Your task to perform on an android device: open app "Messages" Image 0: 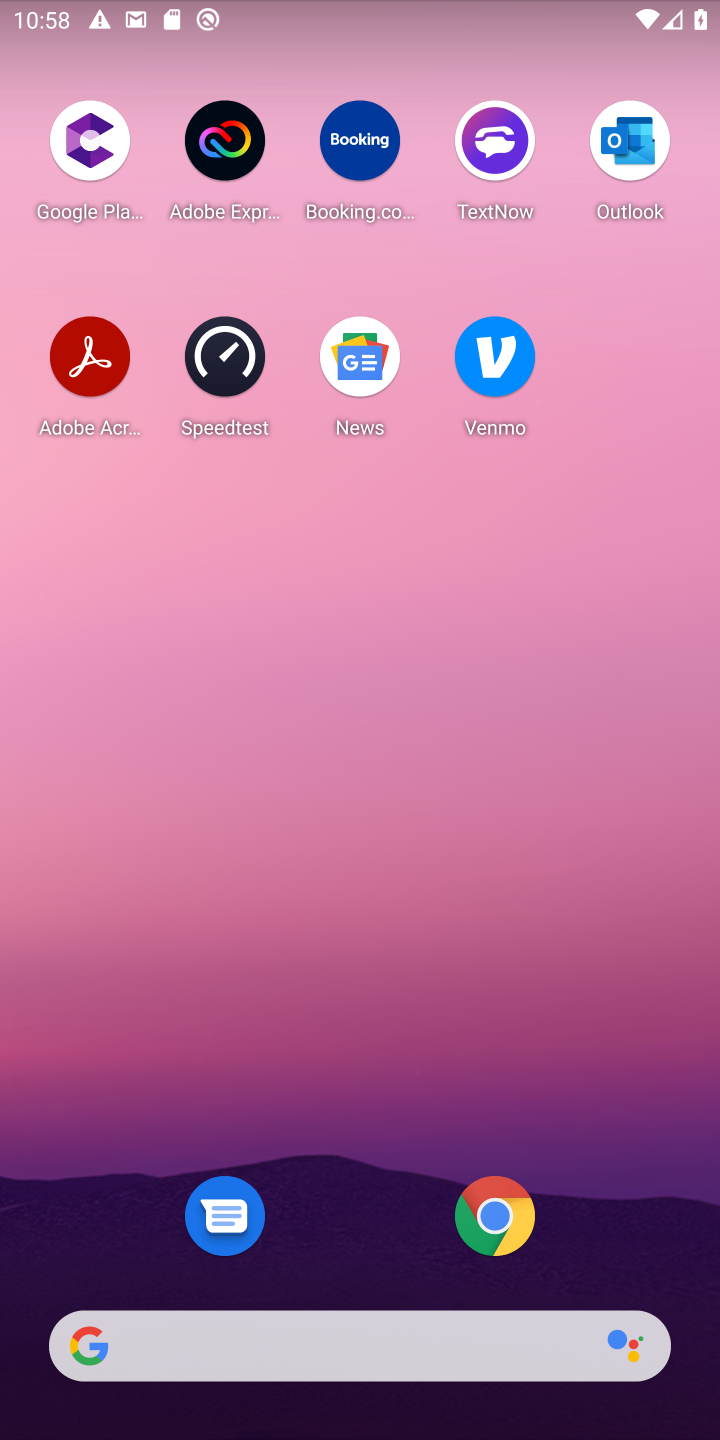
Step 0: drag from (259, 1369) to (492, 323)
Your task to perform on an android device: open app "Messages" Image 1: 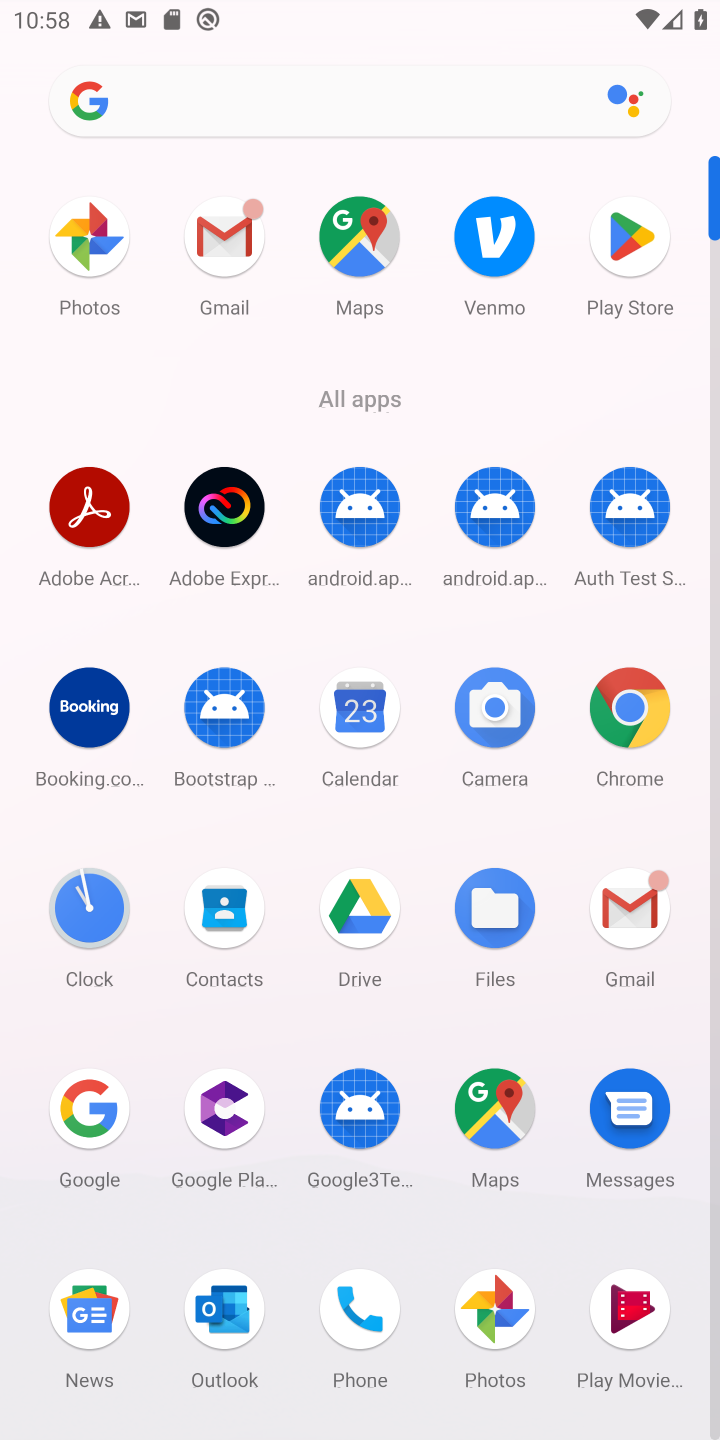
Step 1: click (627, 247)
Your task to perform on an android device: open app "Messages" Image 2: 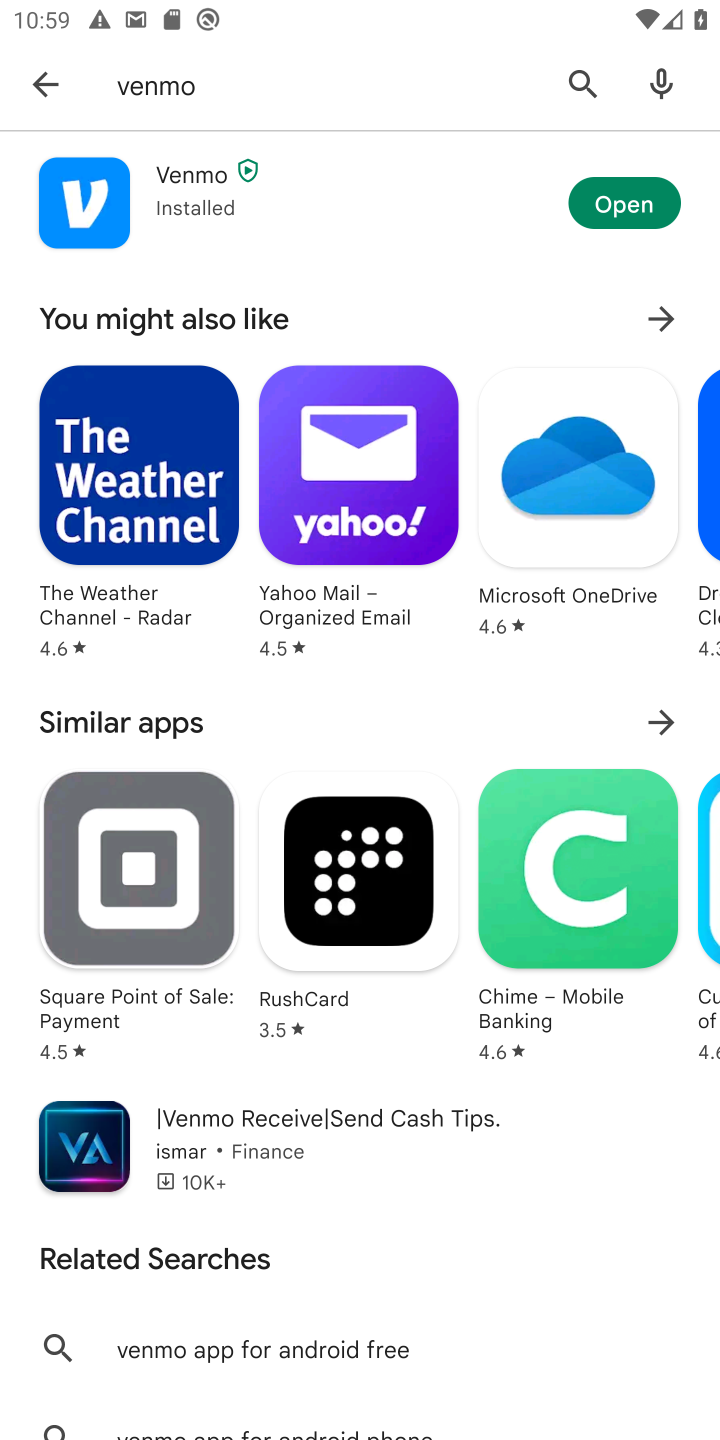
Step 2: press back button
Your task to perform on an android device: open app "Messages" Image 3: 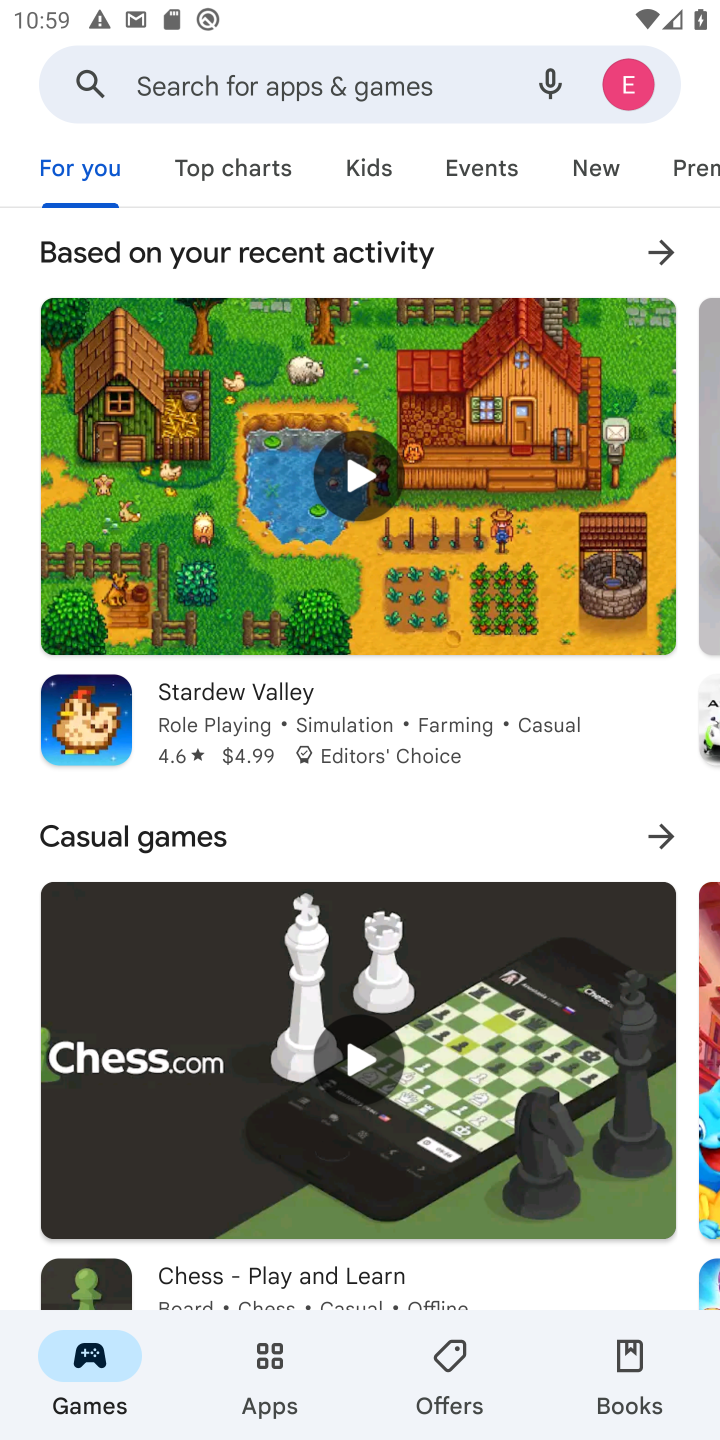
Step 3: click (428, 87)
Your task to perform on an android device: open app "Messages" Image 4: 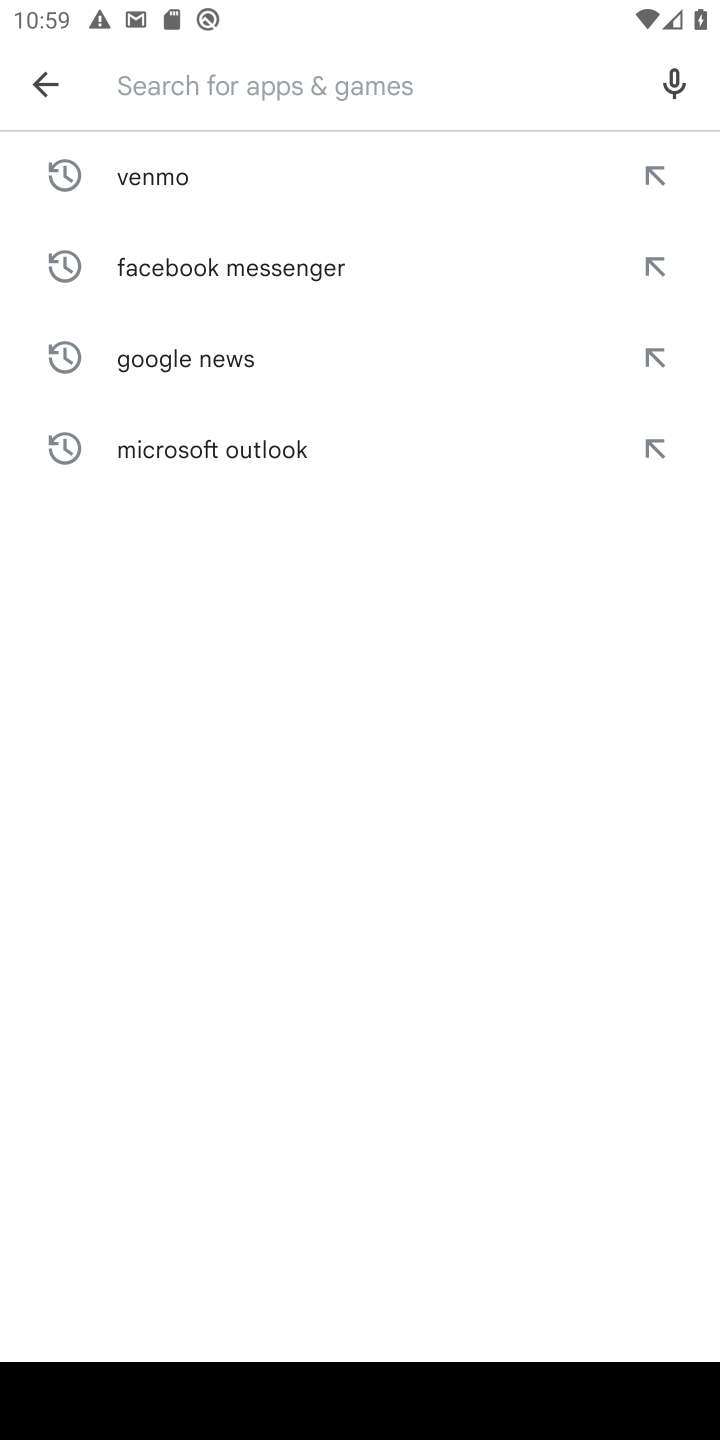
Step 4: type "Messages"
Your task to perform on an android device: open app "Messages" Image 5: 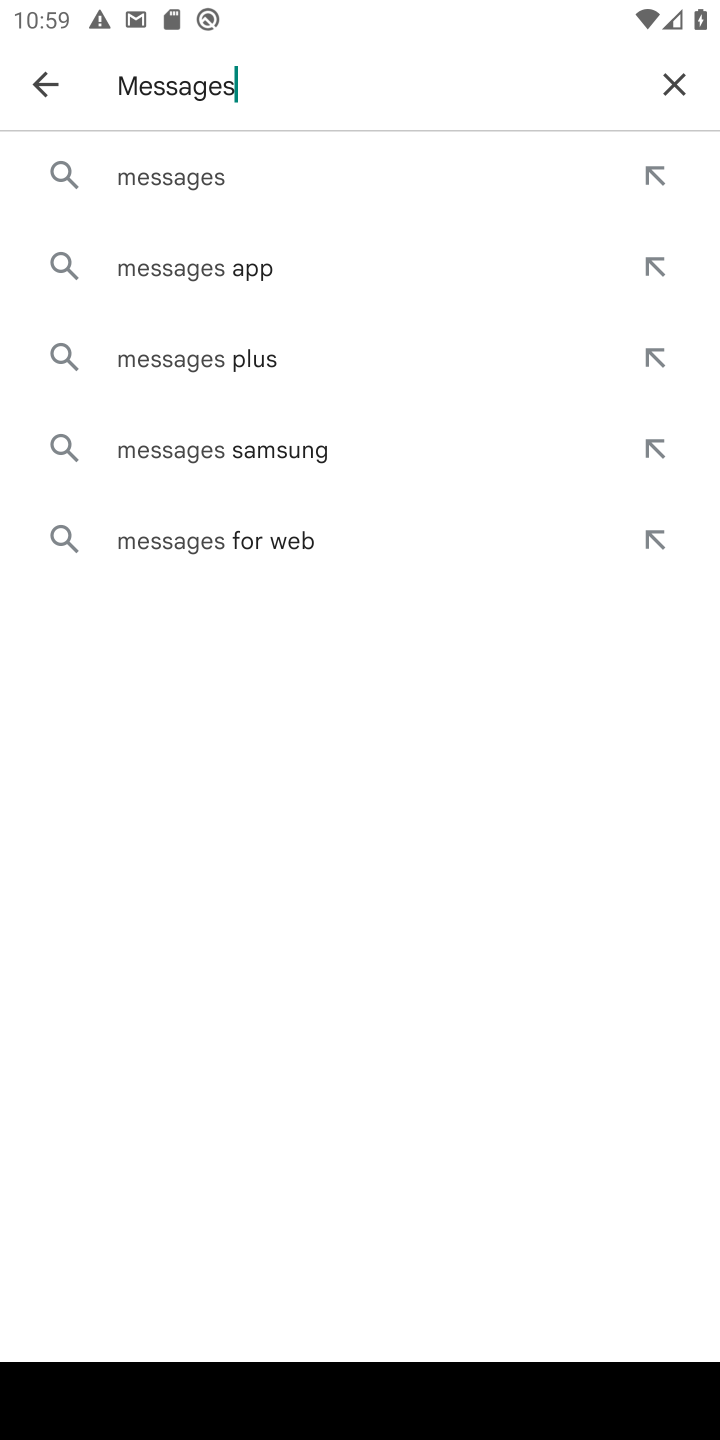
Step 5: click (188, 186)
Your task to perform on an android device: open app "Messages" Image 6: 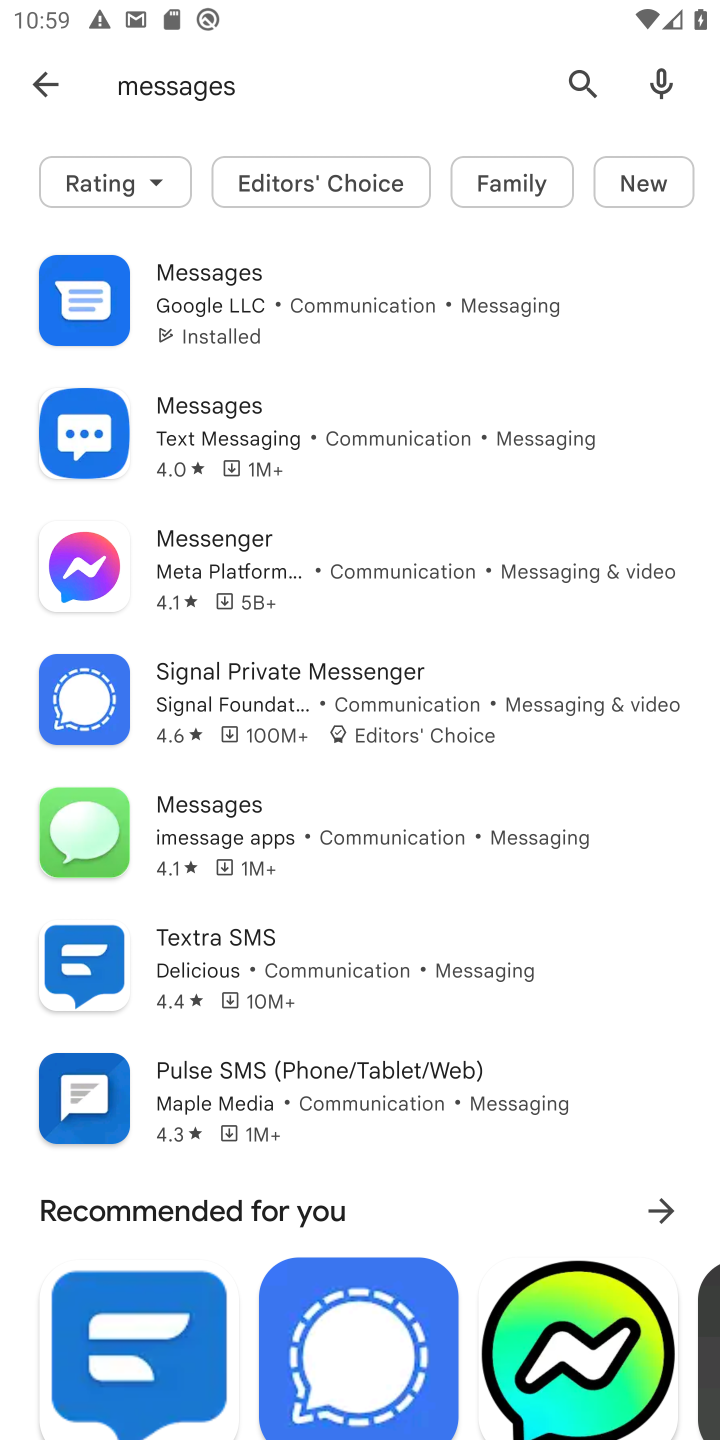
Step 6: click (187, 275)
Your task to perform on an android device: open app "Messages" Image 7: 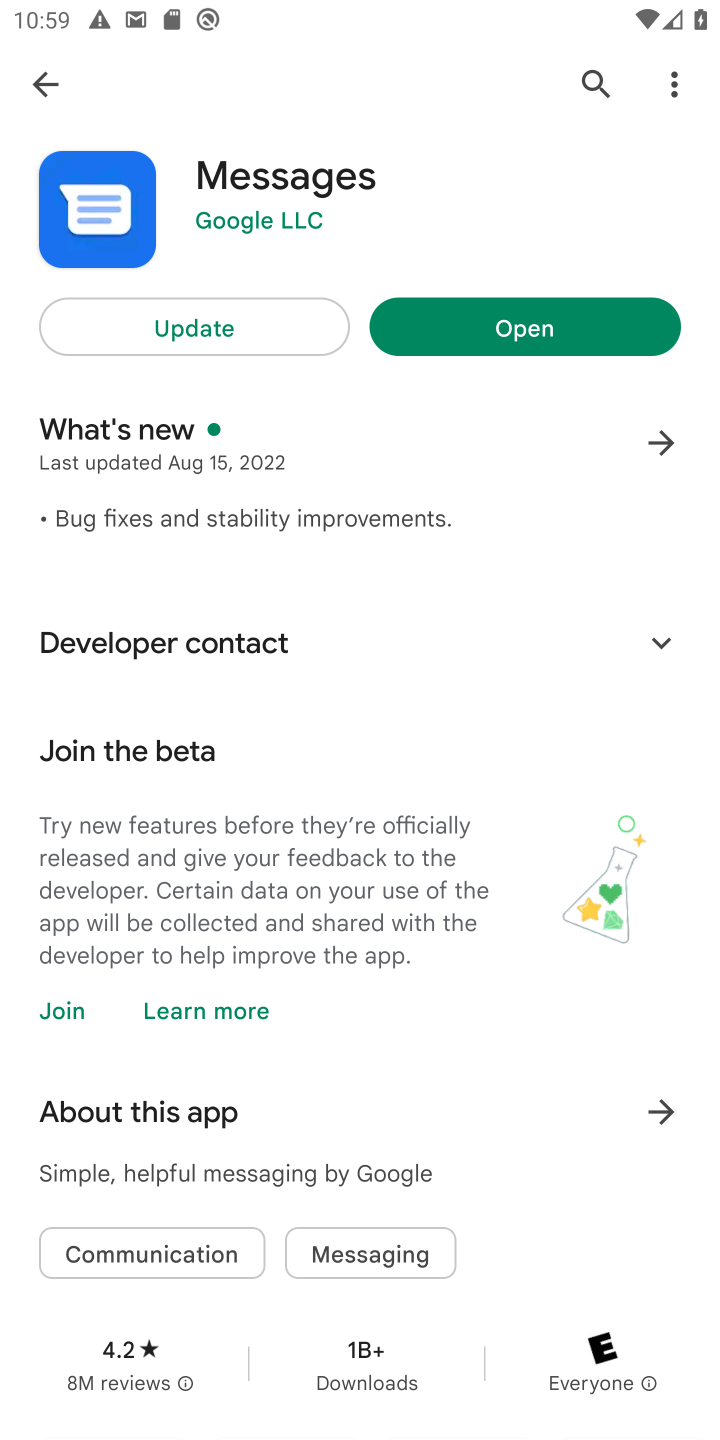
Step 7: click (497, 336)
Your task to perform on an android device: open app "Messages" Image 8: 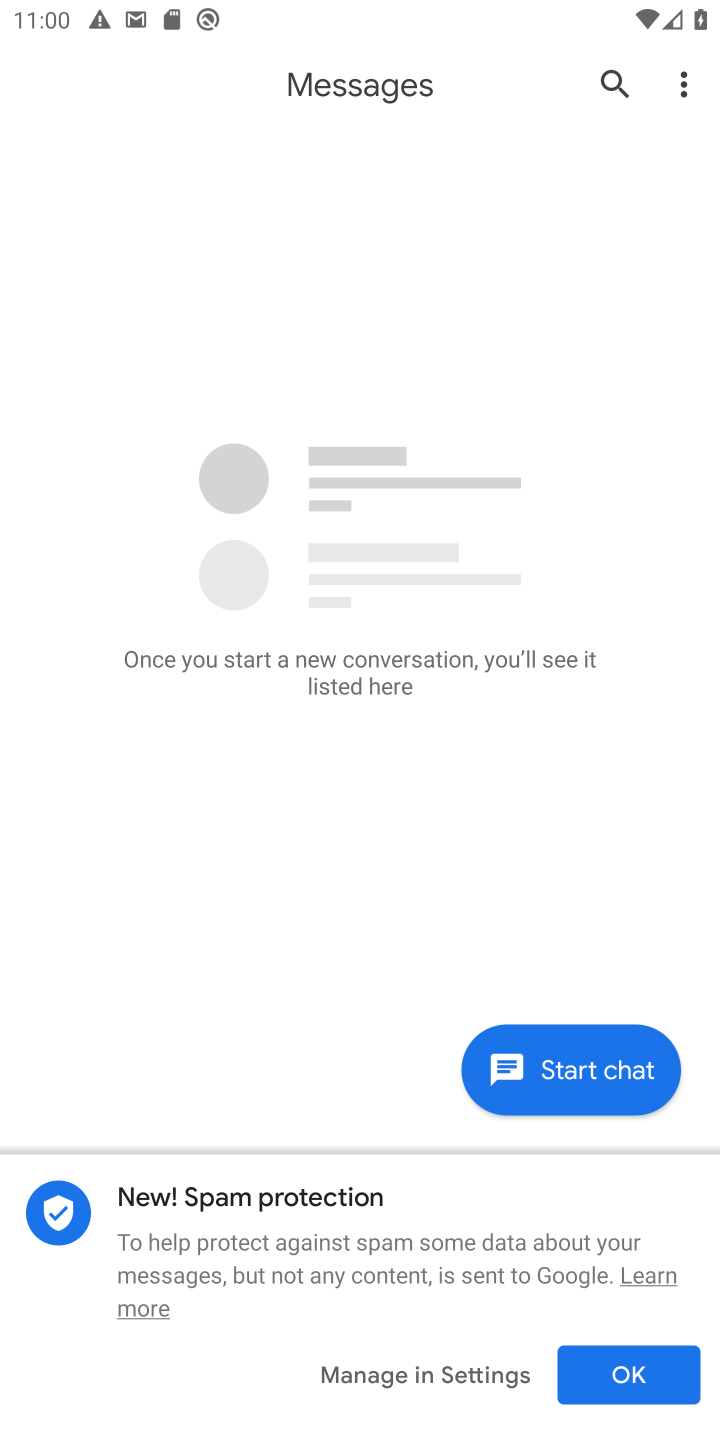
Step 8: task complete